Your task to perform on an android device: find snoozed emails in the gmail app Image 0: 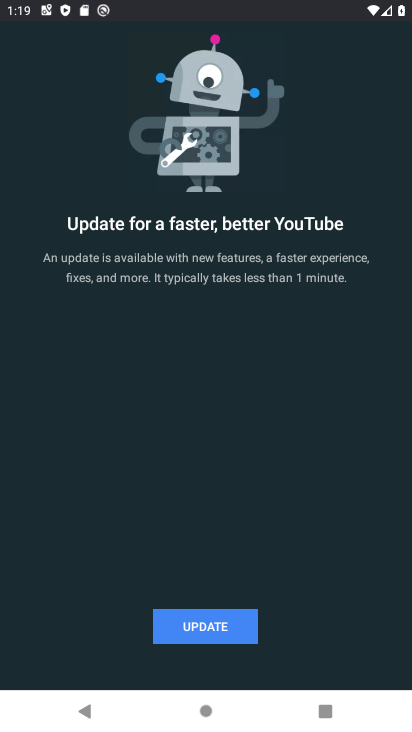
Step 0: press home button
Your task to perform on an android device: find snoozed emails in the gmail app Image 1: 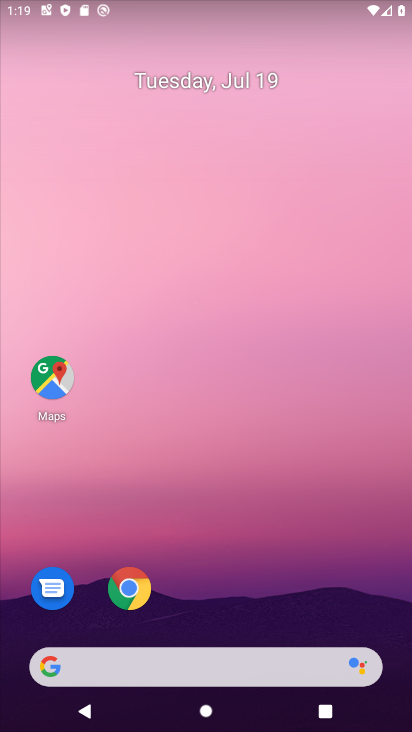
Step 1: drag from (9, 702) to (282, 103)
Your task to perform on an android device: find snoozed emails in the gmail app Image 2: 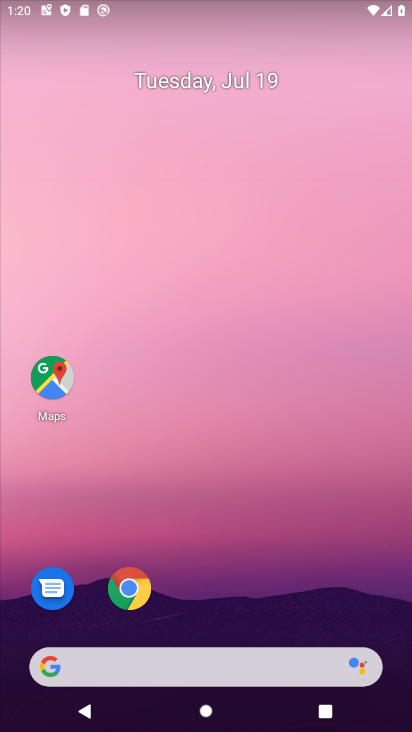
Step 2: drag from (10, 686) to (339, 132)
Your task to perform on an android device: find snoozed emails in the gmail app Image 3: 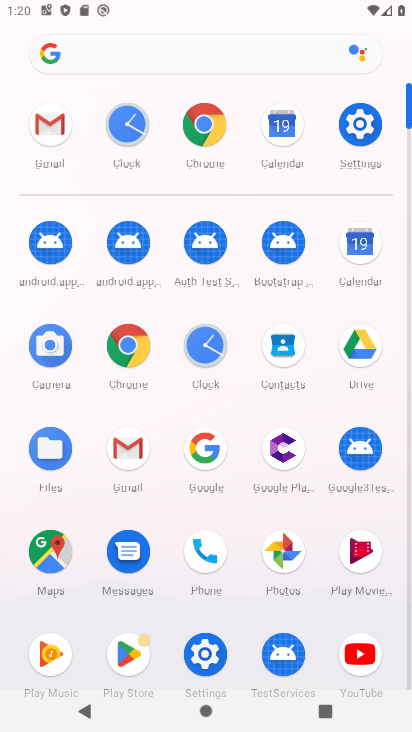
Step 3: click (124, 430)
Your task to perform on an android device: find snoozed emails in the gmail app Image 4: 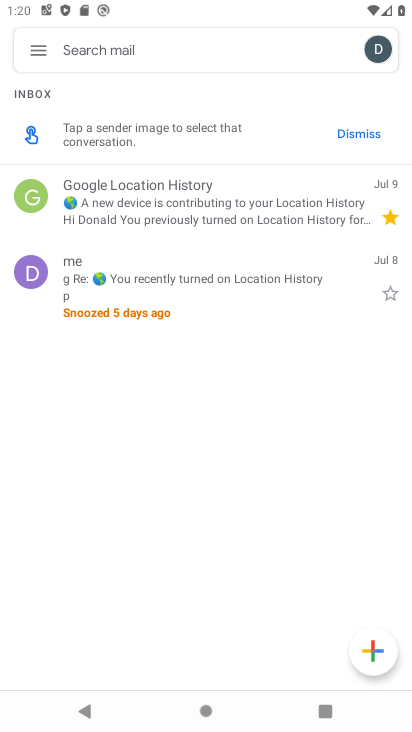
Step 4: click (65, 78)
Your task to perform on an android device: find snoozed emails in the gmail app Image 5: 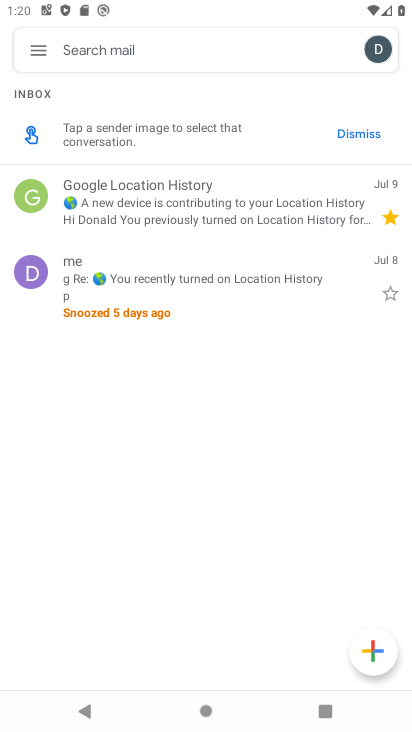
Step 5: click (42, 59)
Your task to perform on an android device: find snoozed emails in the gmail app Image 6: 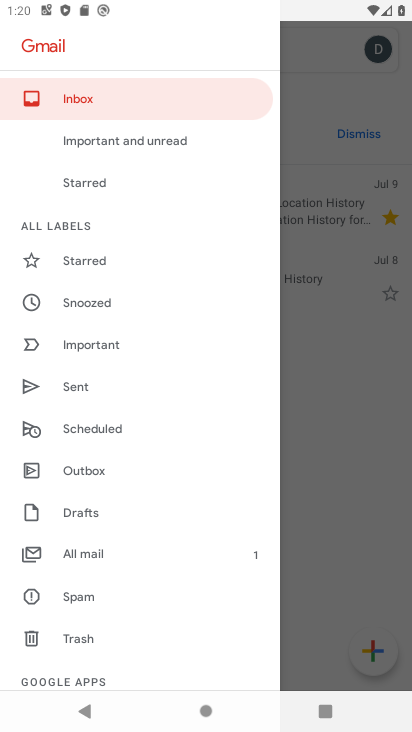
Step 6: click (84, 306)
Your task to perform on an android device: find snoozed emails in the gmail app Image 7: 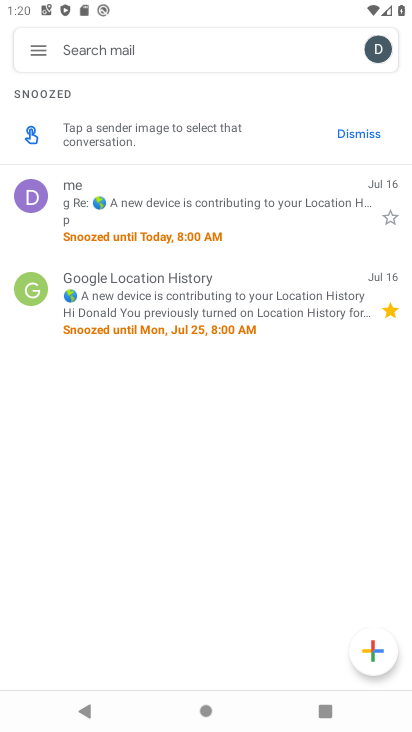
Step 7: task complete